Your task to perform on an android device: change the clock display to analog Image 0: 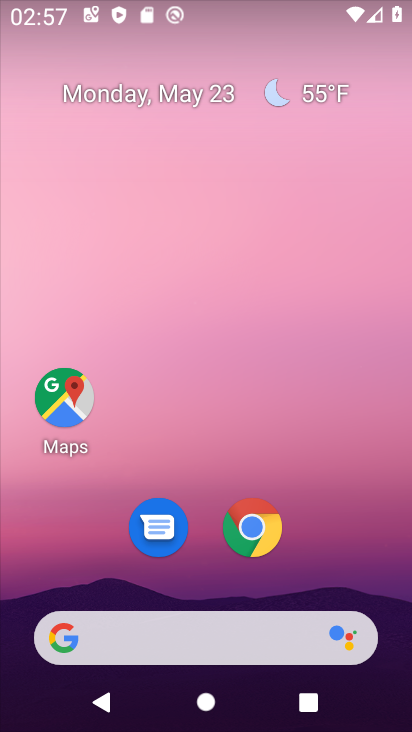
Step 0: drag from (327, 542) to (226, 47)
Your task to perform on an android device: change the clock display to analog Image 1: 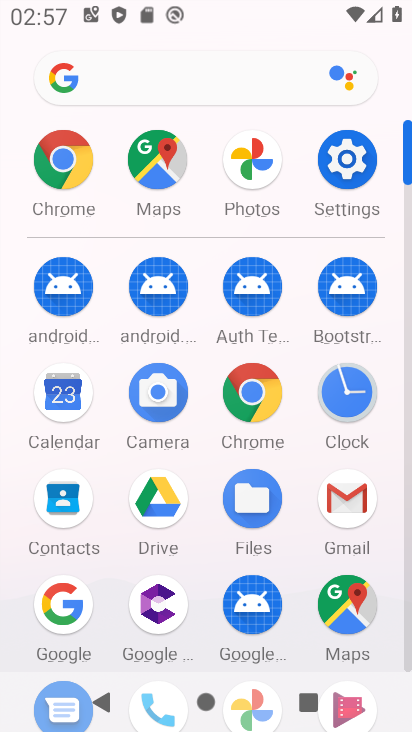
Step 1: drag from (14, 560) to (12, 208)
Your task to perform on an android device: change the clock display to analog Image 2: 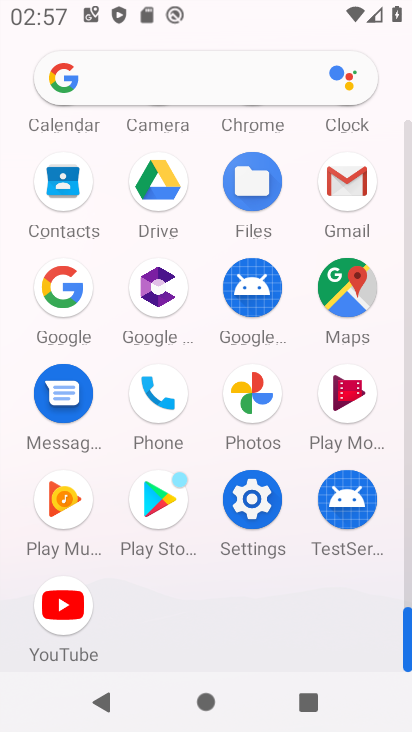
Step 2: drag from (22, 219) to (8, 544)
Your task to perform on an android device: change the clock display to analog Image 3: 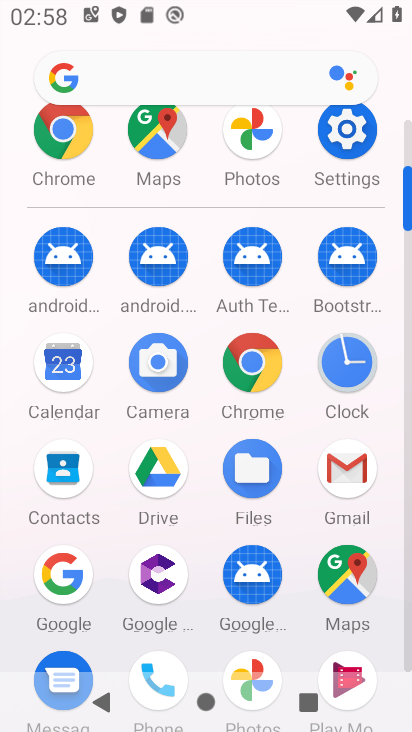
Step 3: click (344, 361)
Your task to perform on an android device: change the clock display to analog Image 4: 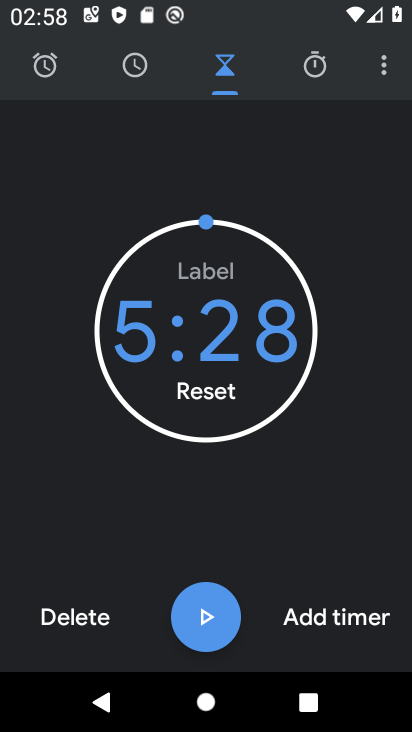
Step 4: drag from (386, 54) to (303, 128)
Your task to perform on an android device: change the clock display to analog Image 5: 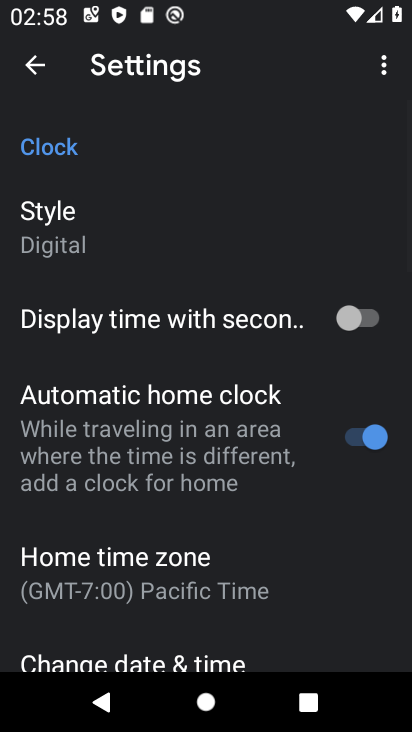
Step 5: drag from (163, 550) to (190, 154)
Your task to perform on an android device: change the clock display to analog Image 6: 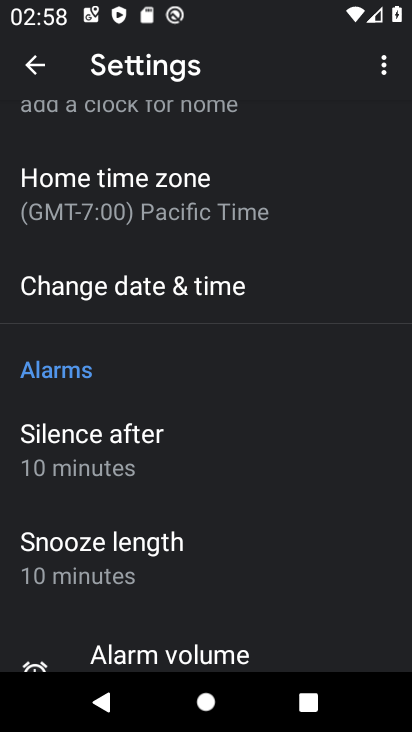
Step 6: drag from (227, 579) to (245, 201)
Your task to perform on an android device: change the clock display to analog Image 7: 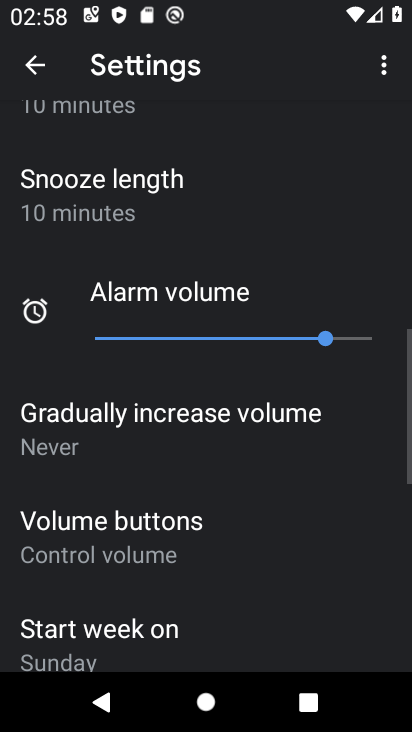
Step 7: drag from (247, 208) to (222, 640)
Your task to perform on an android device: change the clock display to analog Image 8: 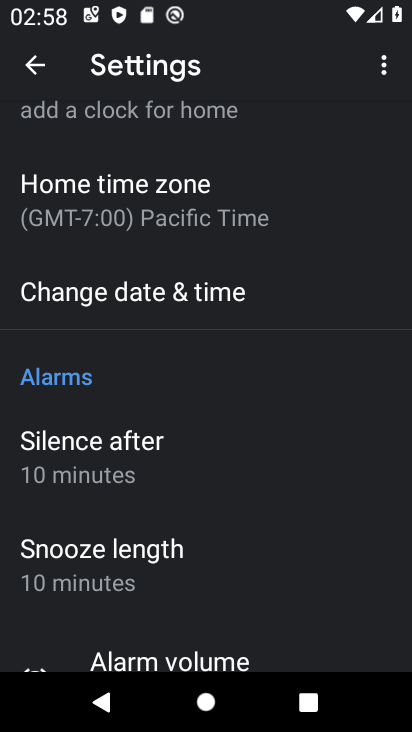
Step 8: drag from (261, 306) to (255, 695)
Your task to perform on an android device: change the clock display to analog Image 9: 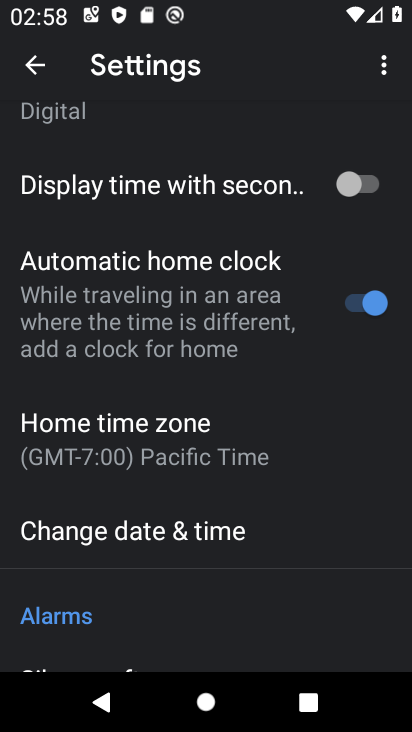
Step 9: drag from (210, 235) to (206, 650)
Your task to perform on an android device: change the clock display to analog Image 10: 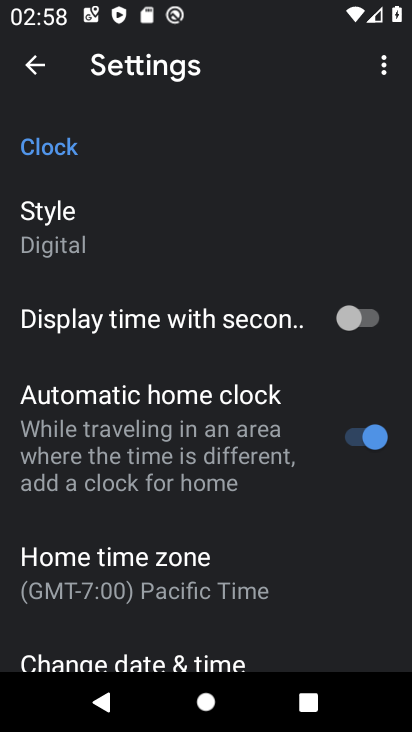
Step 10: click (117, 222)
Your task to perform on an android device: change the clock display to analog Image 11: 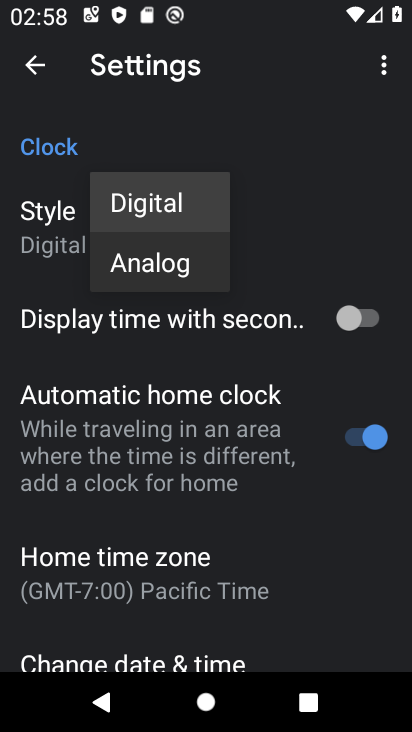
Step 11: click (155, 263)
Your task to perform on an android device: change the clock display to analog Image 12: 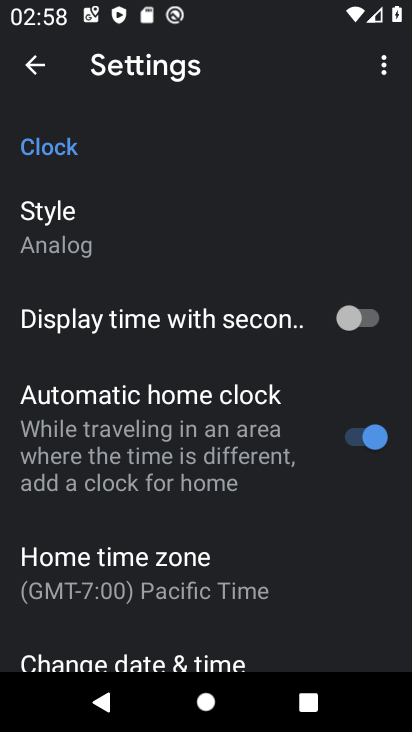
Step 12: task complete